Your task to perform on an android device: change the upload size in google photos Image 0: 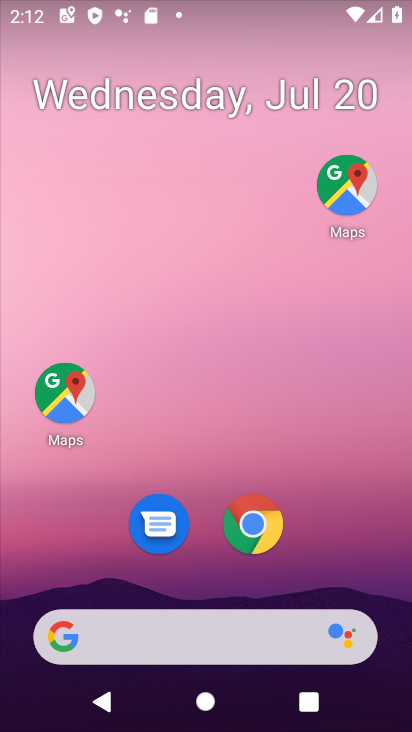
Step 0: drag from (201, 469) to (229, 5)
Your task to perform on an android device: change the upload size in google photos Image 1: 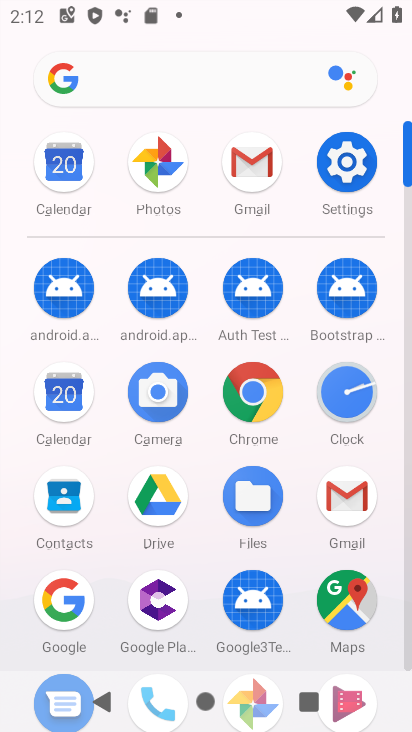
Step 1: click (163, 149)
Your task to perform on an android device: change the upload size in google photos Image 2: 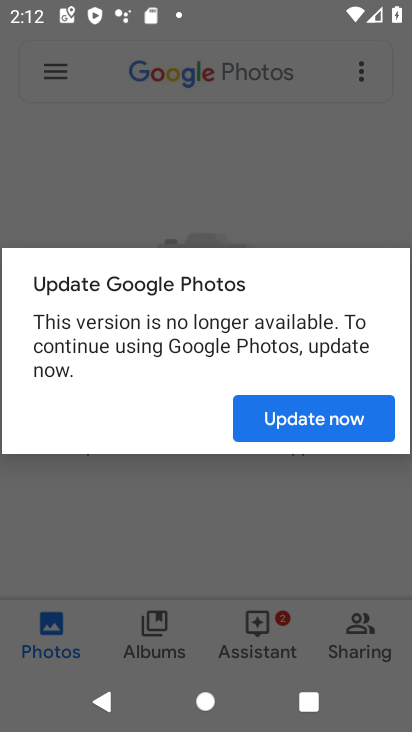
Step 2: click (305, 422)
Your task to perform on an android device: change the upload size in google photos Image 3: 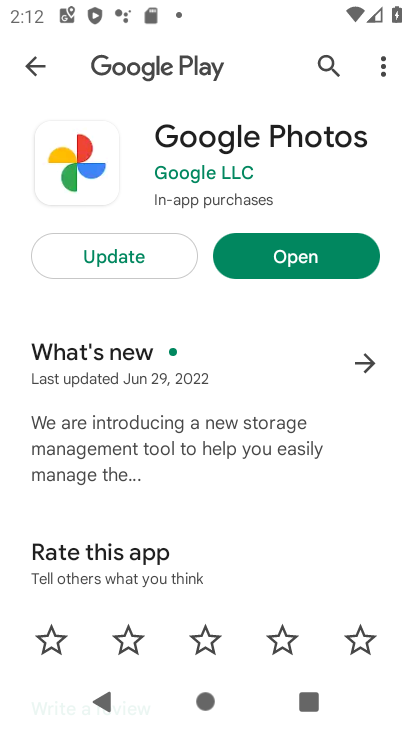
Step 3: click (329, 254)
Your task to perform on an android device: change the upload size in google photos Image 4: 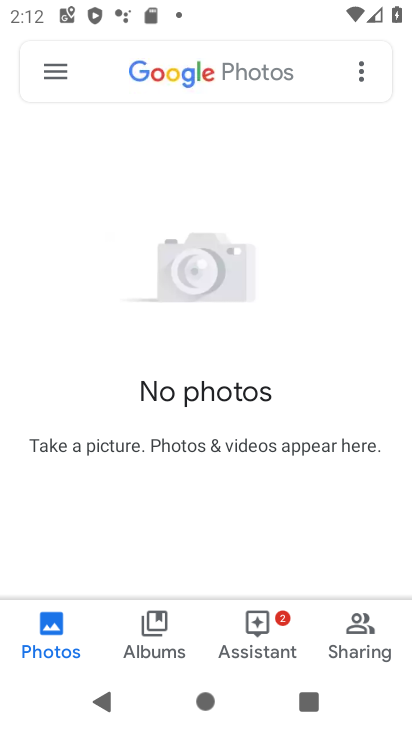
Step 4: click (50, 66)
Your task to perform on an android device: change the upload size in google photos Image 5: 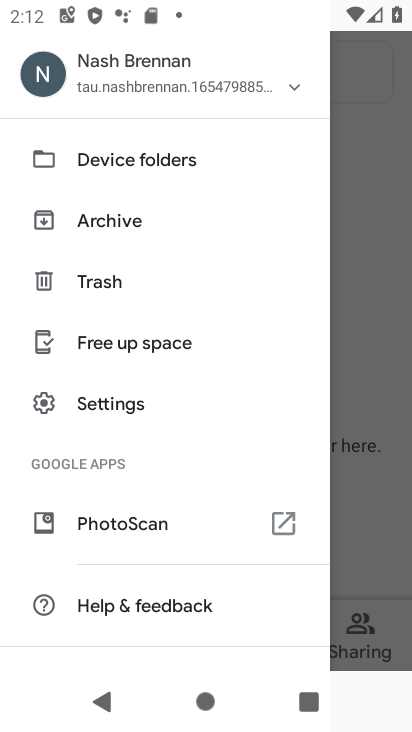
Step 5: click (130, 411)
Your task to perform on an android device: change the upload size in google photos Image 6: 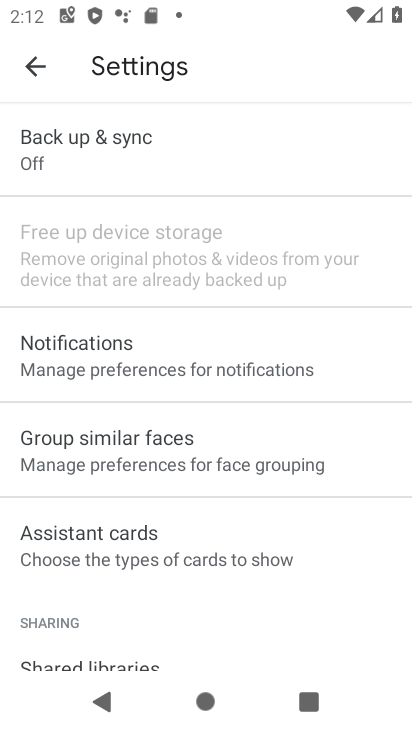
Step 6: click (124, 147)
Your task to perform on an android device: change the upload size in google photos Image 7: 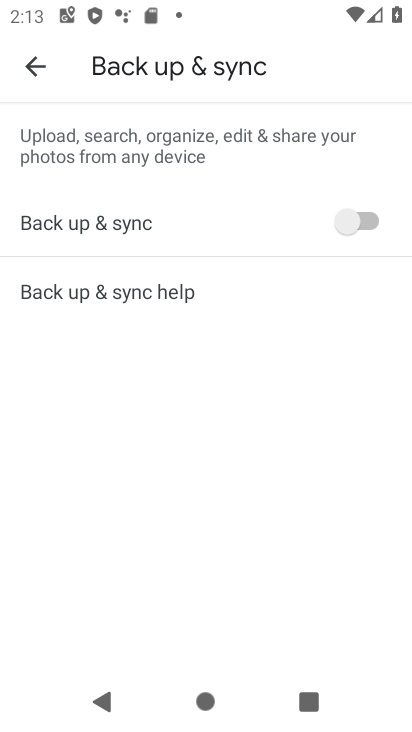
Step 7: click (354, 212)
Your task to perform on an android device: change the upload size in google photos Image 8: 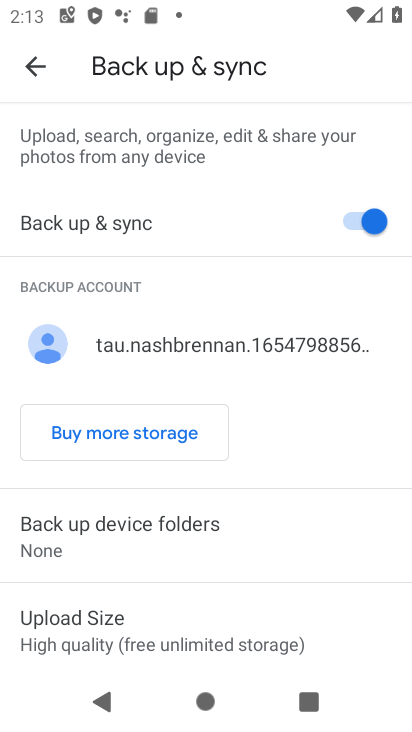
Step 8: click (161, 618)
Your task to perform on an android device: change the upload size in google photos Image 9: 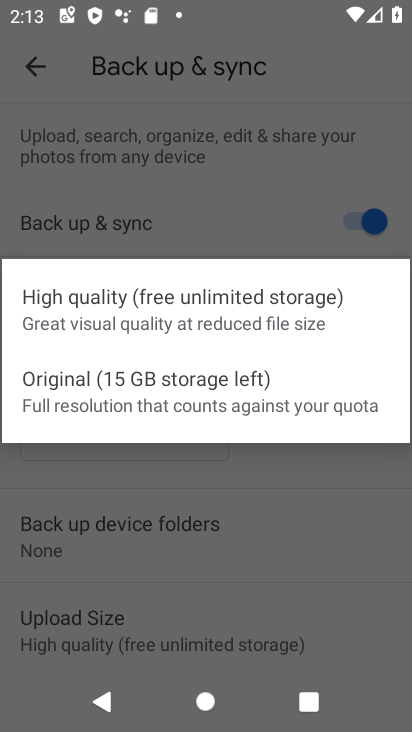
Step 9: click (176, 370)
Your task to perform on an android device: change the upload size in google photos Image 10: 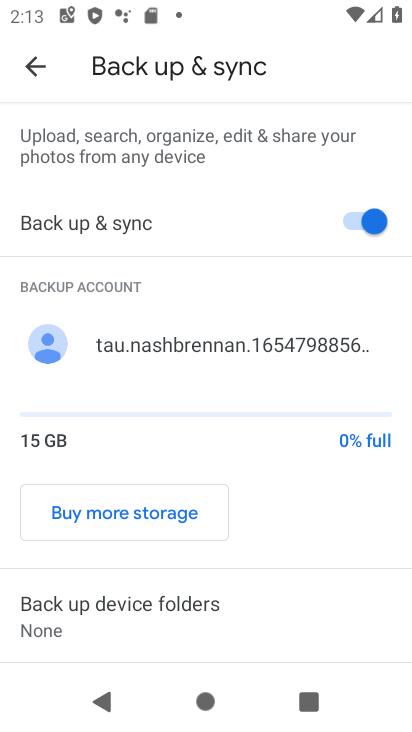
Step 10: task complete